Your task to perform on an android device: Open maps Image 0: 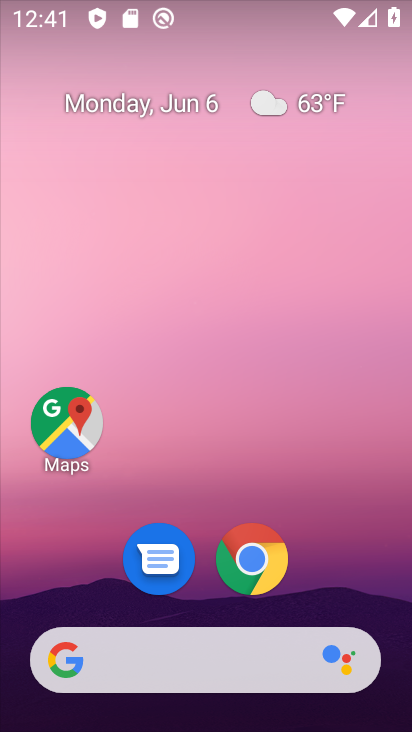
Step 0: click (57, 409)
Your task to perform on an android device: Open maps Image 1: 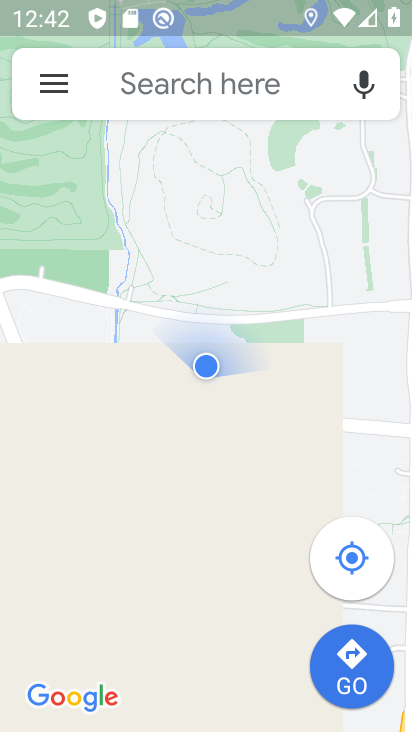
Step 1: task complete